Your task to perform on an android device: Open Youtube and go to the subscriptions tab Image 0: 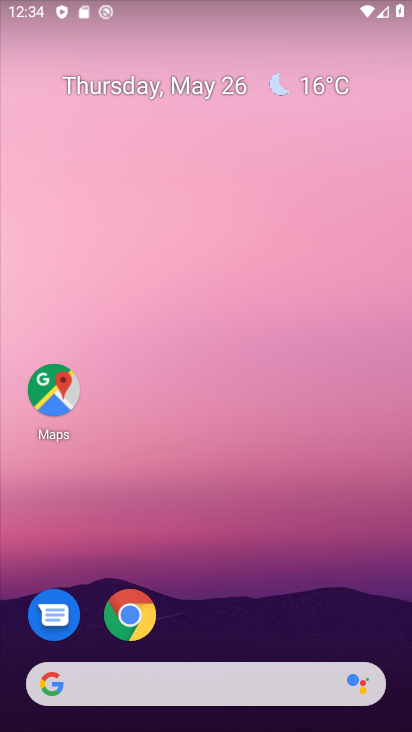
Step 0: drag from (198, 601) to (179, 77)
Your task to perform on an android device: Open Youtube and go to the subscriptions tab Image 1: 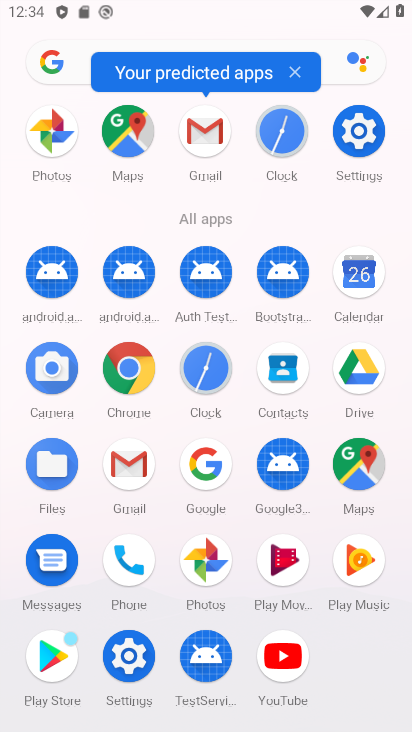
Step 1: click (284, 663)
Your task to perform on an android device: Open Youtube and go to the subscriptions tab Image 2: 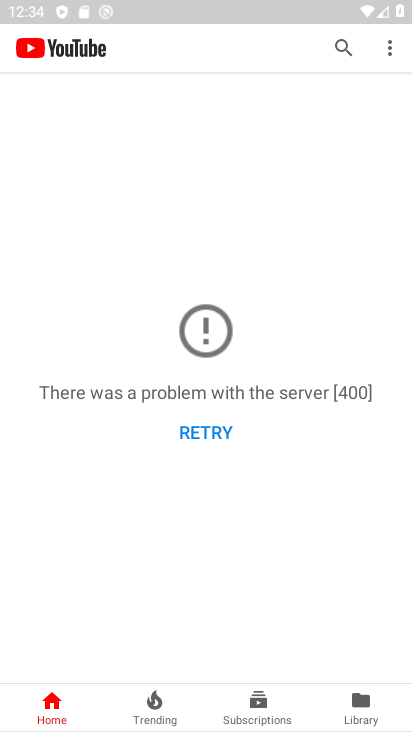
Step 2: click (226, 709)
Your task to perform on an android device: Open Youtube and go to the subscriptions tab Image 3: 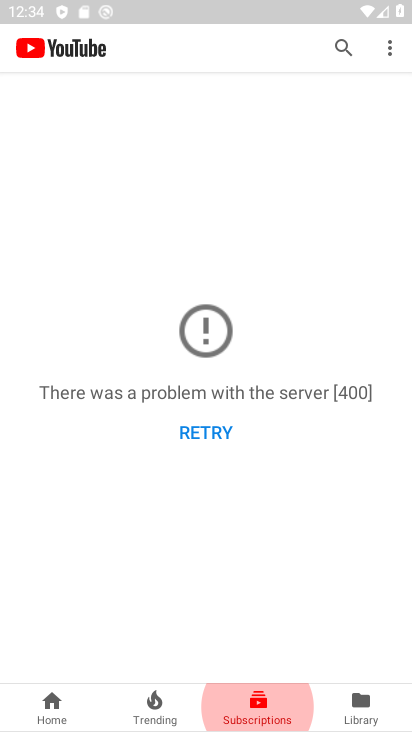
Step 3: click (255, 710)
Your task to perform on an android device: Open Youtube and go to the subscriptions tab Image 4: 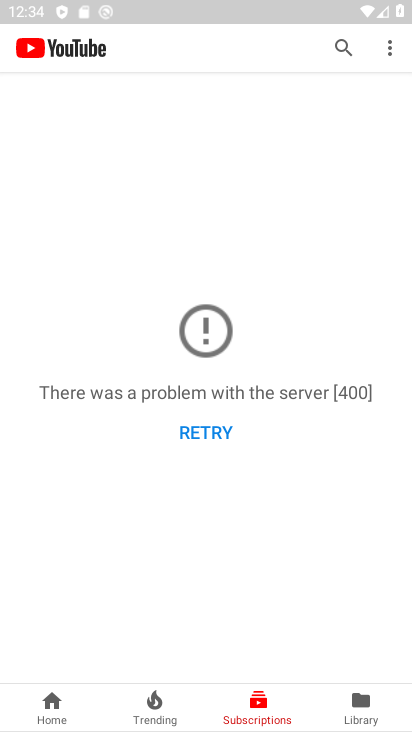
Step 4: task complete